Your task to perform on an android device: Go to settings Image 0: 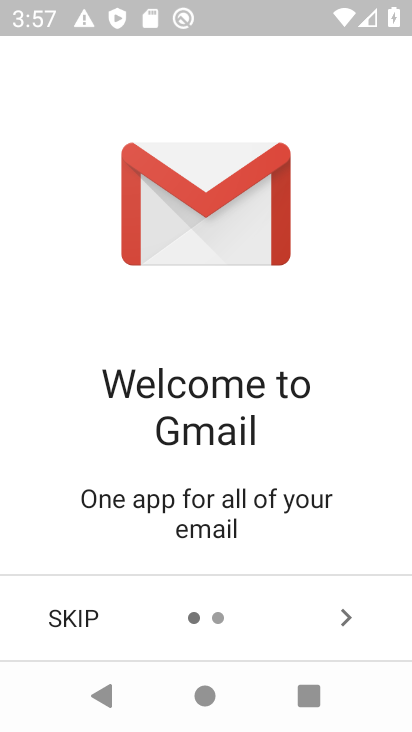
Step 0: press home button
Your task to perform on an android device: Go to settings Image 1: 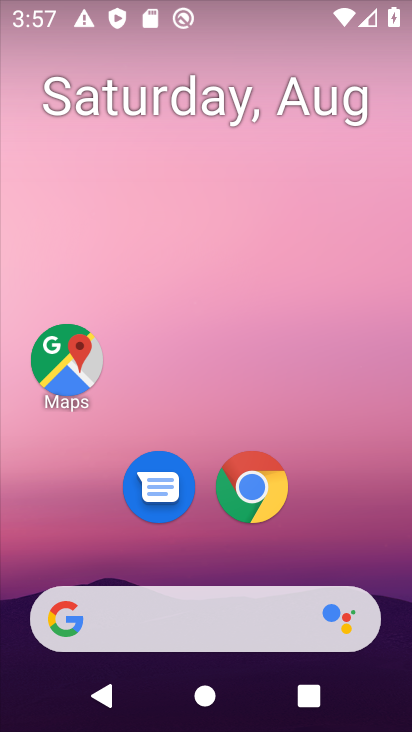
Step 1: drag from (258, 657) to (292, 24)
Your task to perform on an android device: Go to settings Image 2: 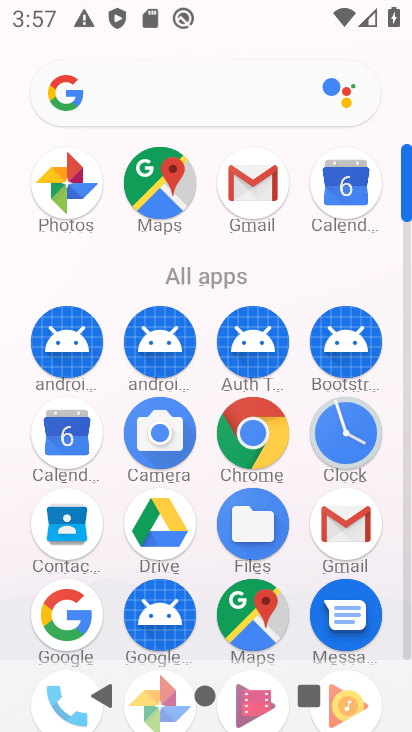
Step 2: drag from (193, 584) to (284, 58)
Your task to perform on an android device: Go to settings Image 3: 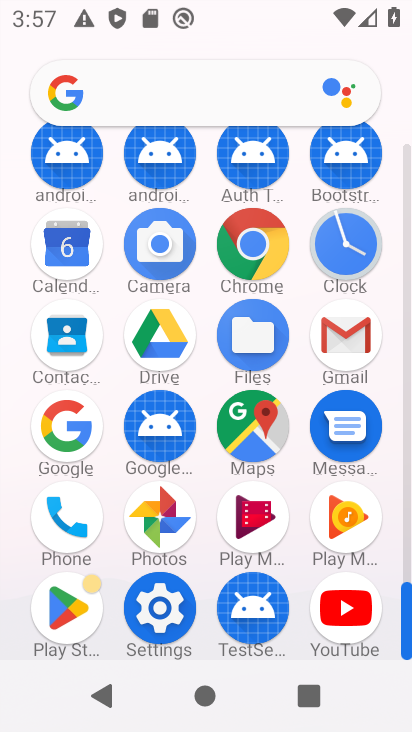
Step 3: click (130, 609)
Your task to perform on an android device: Go to settings Image 4: 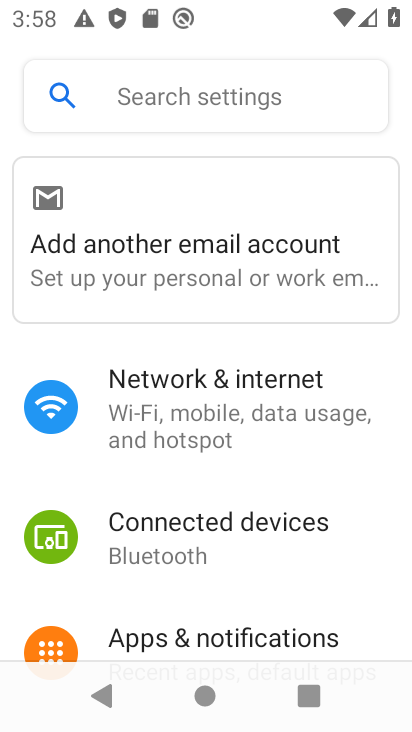
Step 4: task complete